Your task to perform on an android device: turn notification dots on Image 0: 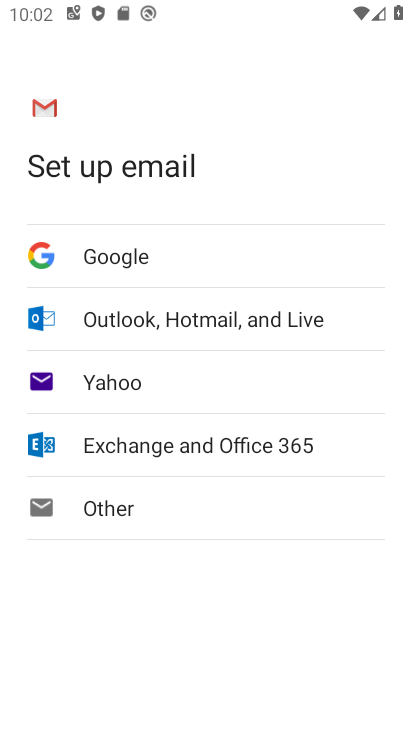
Step 0: press home button
Your task to perform on an android device: turn notification dots on Image 1: 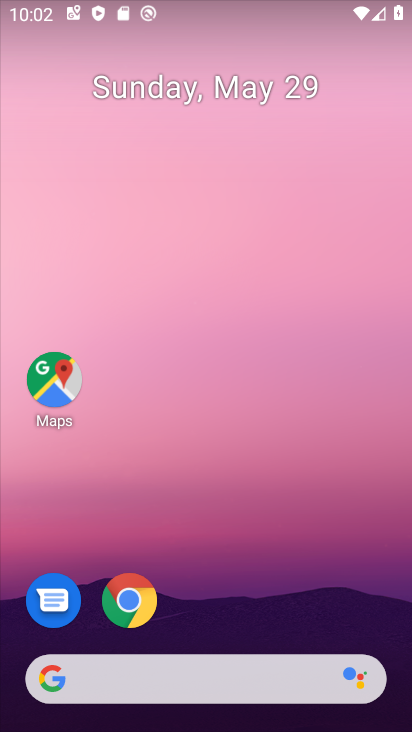
Step 1: drag from (218, 729) to (190, 158)
Your task to perform on an android device: turn notification dots on Image 2: 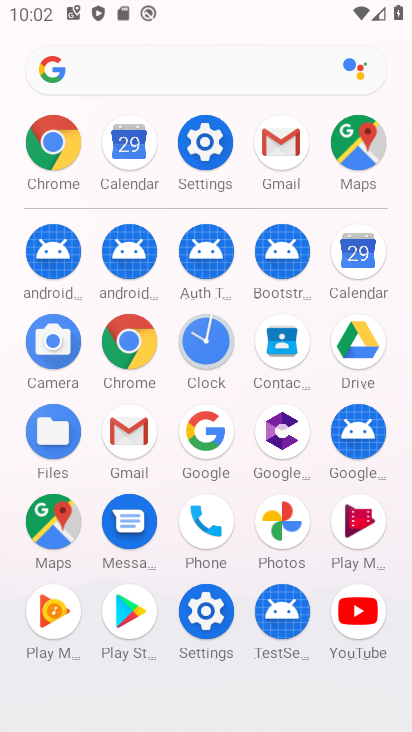
Step 2: click (202, 142)
Your task to perform on an android device: turn notification dots on Image 3: 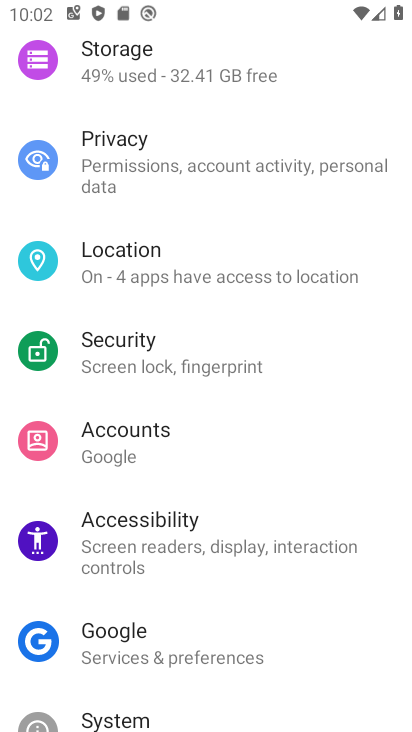
Step 3: drag from (199, 100) to (210, 505)
Your task to perform on an android device: turn notification dots on Image 4: 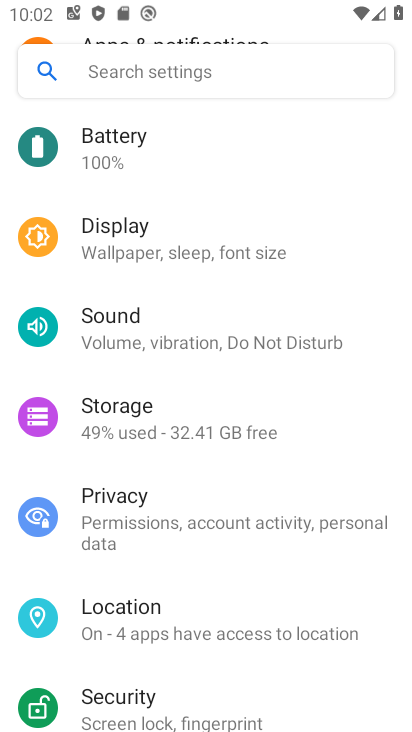
Step 4: drag from (265, 152) to (262, 580)
Your task to perform on an android device: turn notification dots on Image 5: 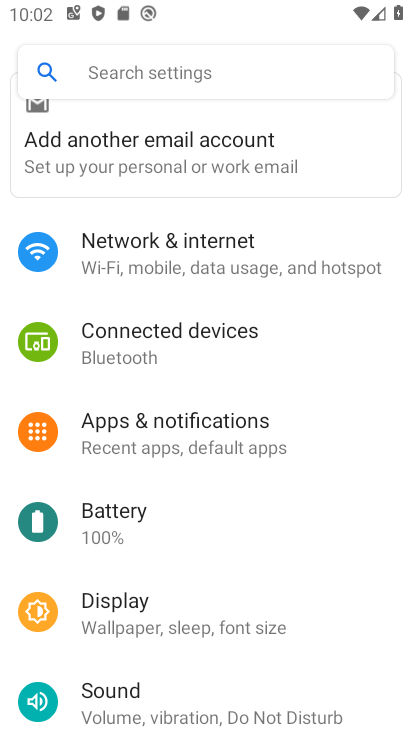
Step 5: click (132, 426)
Your task to perform on an android device: turn notification dots on Image 6: 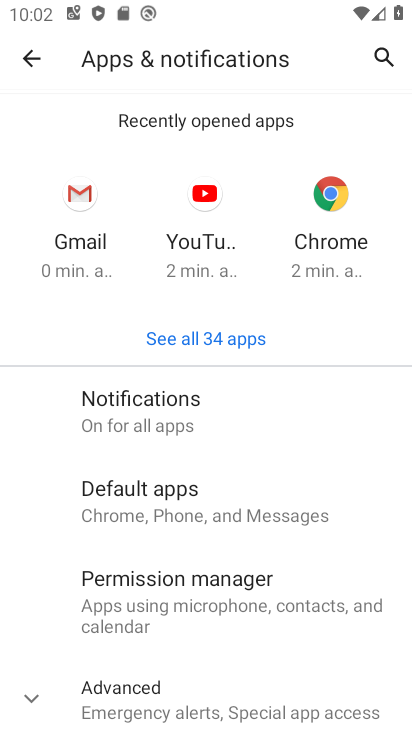
Step 6: click (150, 417)
Your task to perform on an android device: turn notification dots on Image 7: 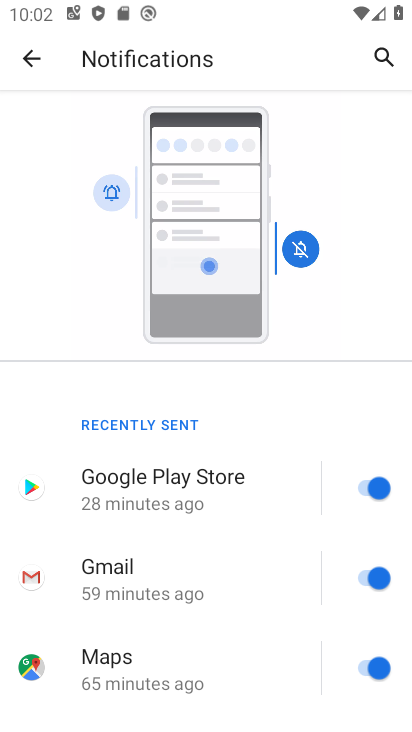
Step 7: drag from (234, 715) to (180, 296)
Your task to perform on an android device: turn notification dots on Image 8: 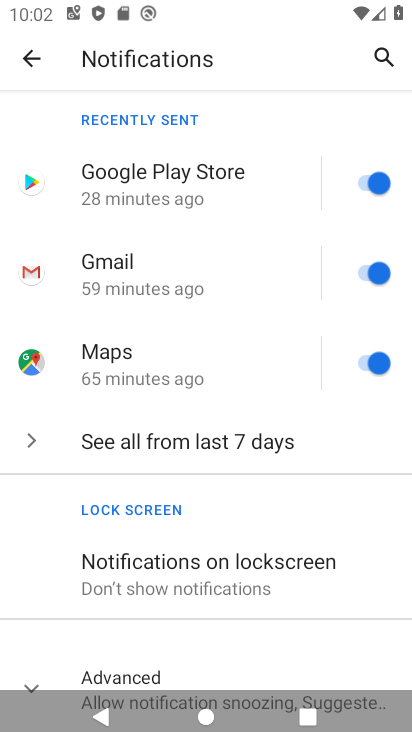
Step 8: drag from (249, 654) to (221, 335)
Your task to perform on an android device: turn notification dots on Image 9: 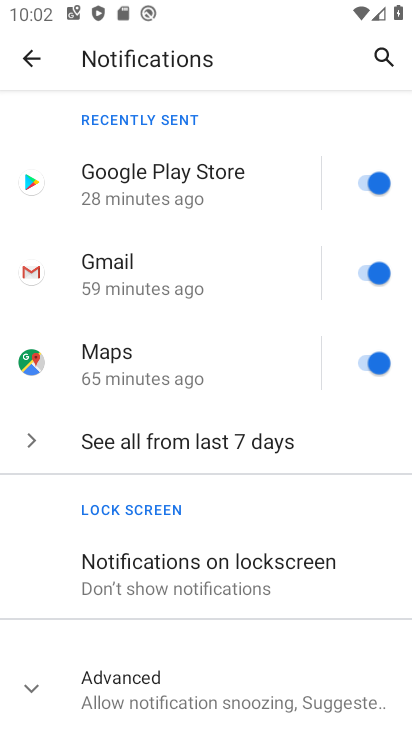
Step 9: click (117, 683)
Your task to perform on an android device: turn notification dots on Image 10: 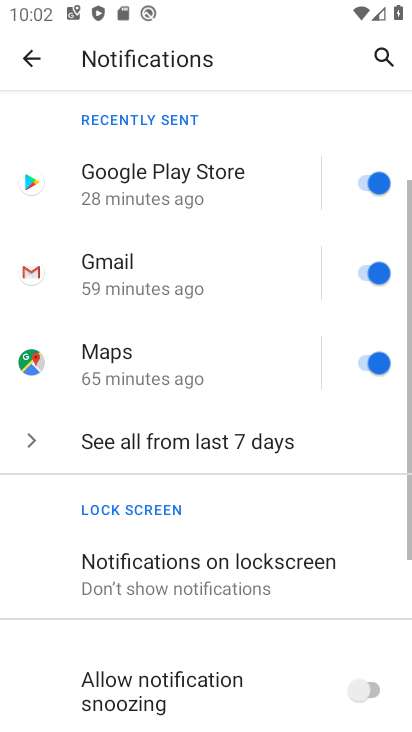
Step 10: drag from (267, 593) to (245, 299)
Your task to perform on an android device: turn notification dots on Image 11: 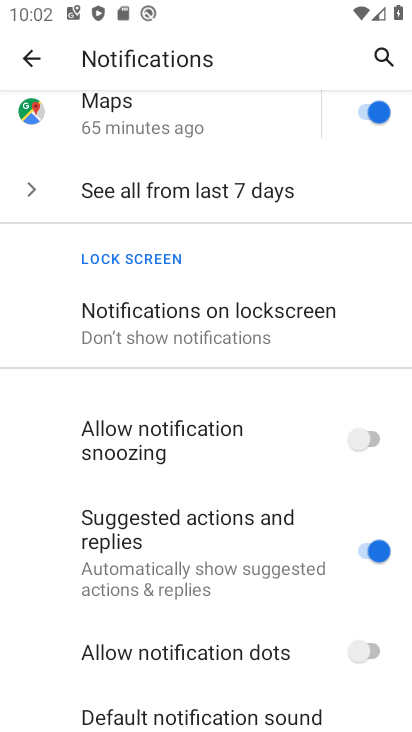
Step 11: click (372, 647)
Your task to perform on an android device: turn notification dots on Image 12: 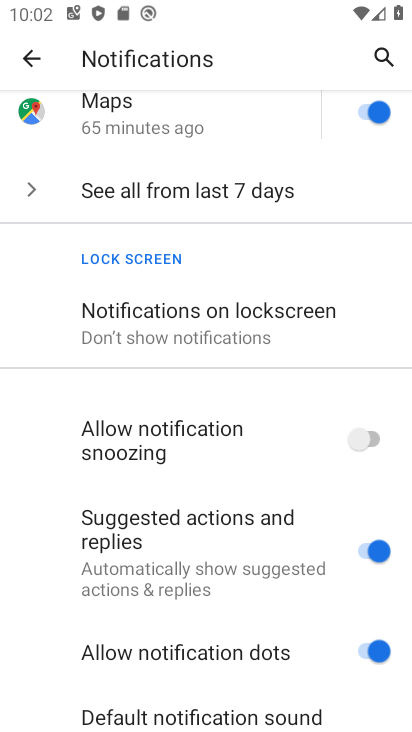
Step 12: task complete